Your task to perform on an android device: Open Android settings Image 0: 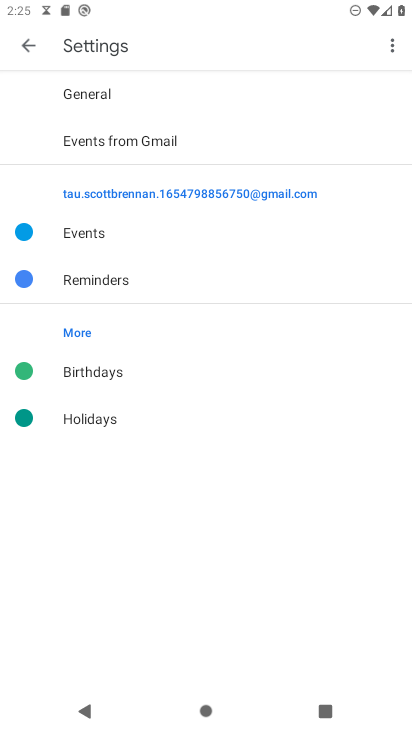
Step 0: press home button
Your task to perform on an android device: Open Android settings Image 1: 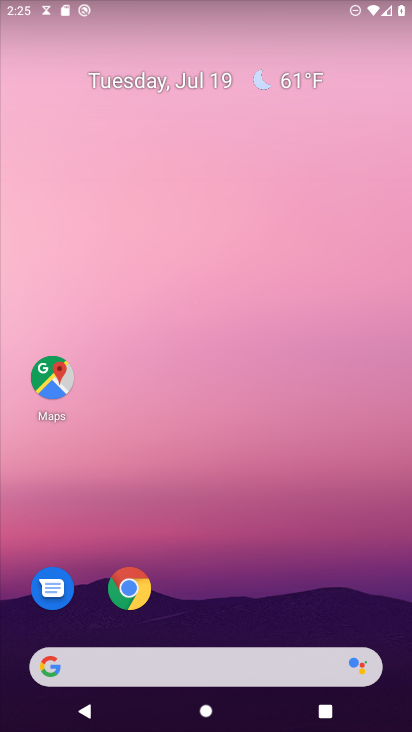
Step 1: drag from (290, 688) to (195, 218)
Your task to perform on an android device: Open Android settings Image 2: 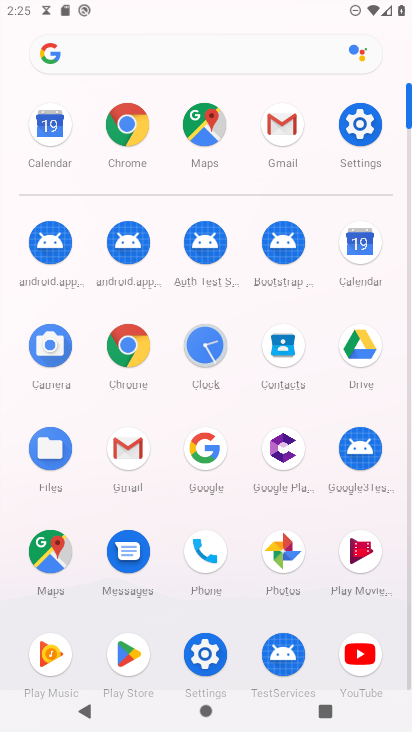
Step 2: click (348, 122)
Your task to perform on an android device: Open Android settings Image 3: 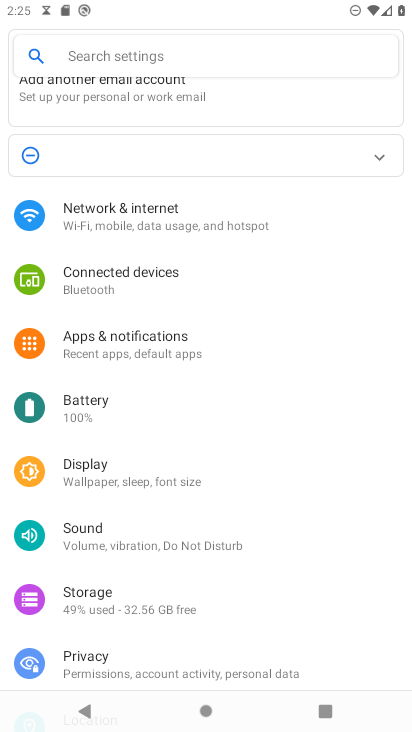
Step 3: click (111, 58)
Your task to perform on an android device: Open Android settings Image 4: 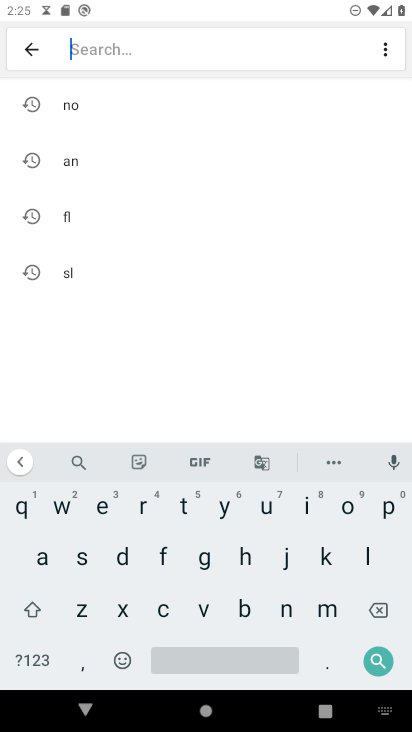
Step 4: click (45, 556)
Your task to perform on an android device: Open Android settings Image 5: 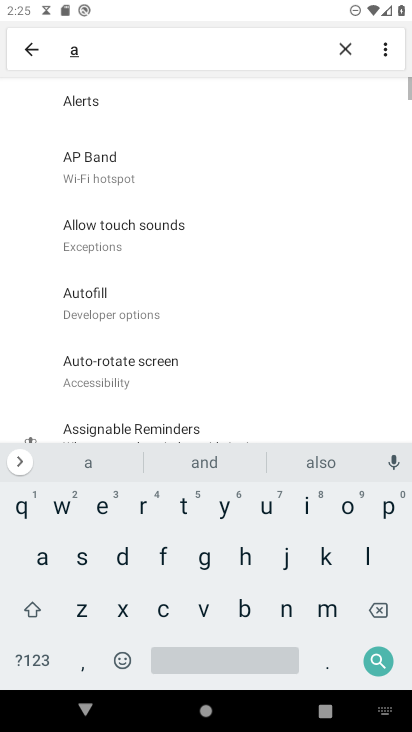
Step 5: click (293, 616)
Your task to perform on an android device: Open Android settings Image 6: 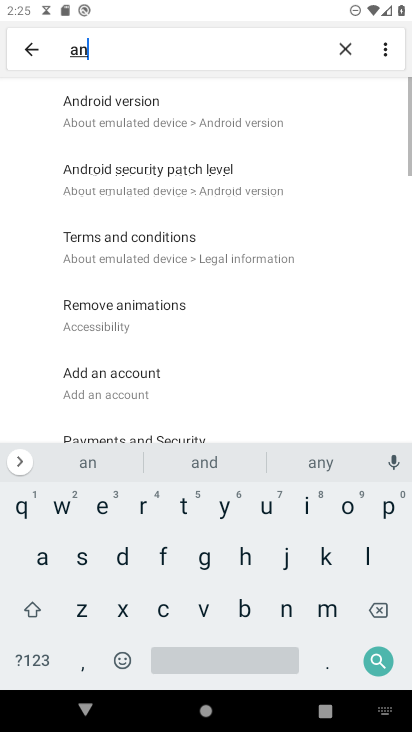
Step 6: click (140, 103)
Your task to perform on an android device: Open Android settings Image 7: 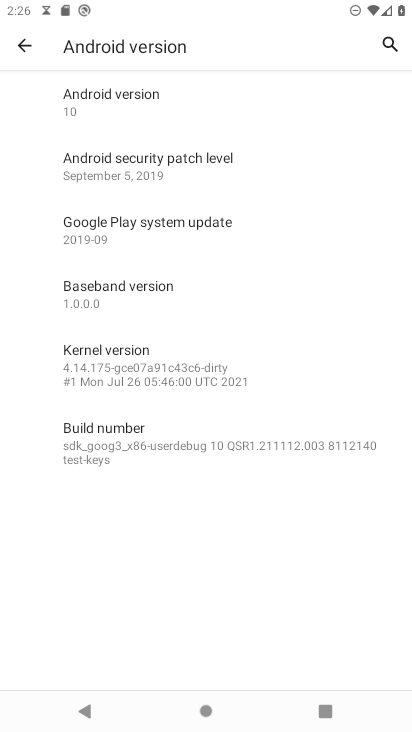
Step 7: task complete